Your task to perform on an android device: turn on bluetooth scan Image 0: 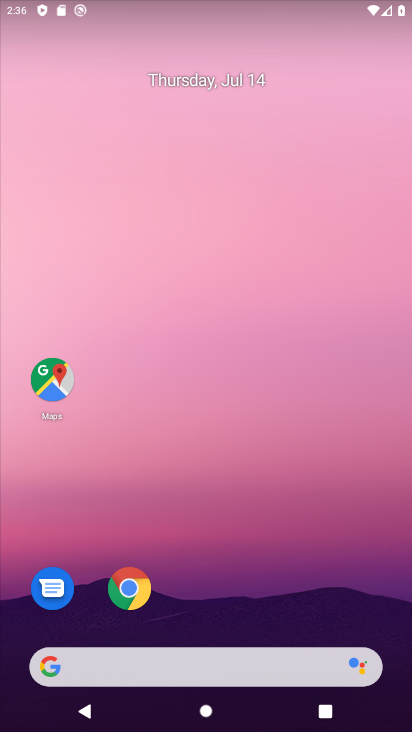
Step 0: drag from (180, 622) to (116, 68)
Your task to perform on an android device: turn on bluetooth scan Image 1: 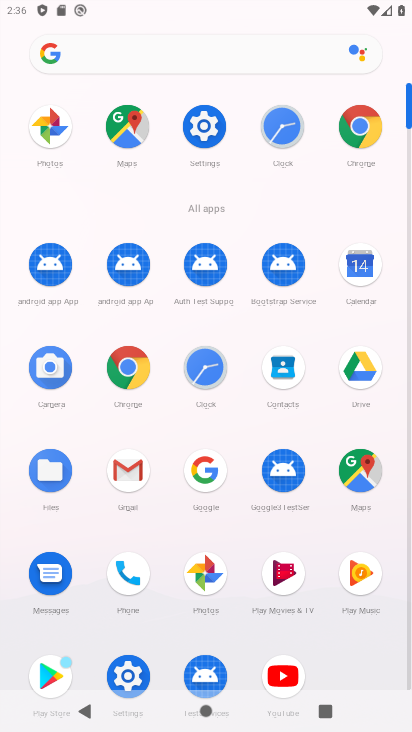
Step 1: click (201, 117)
Your task to perform on an android device: turn on bluetooth scan Image 2: 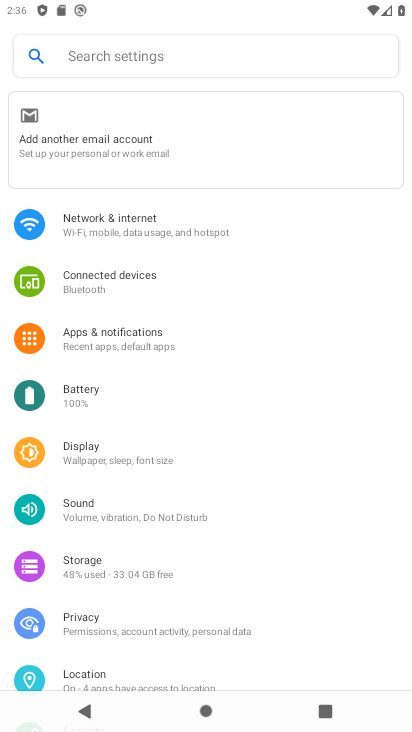
Step 2: drag from (142, 550) to (136, 151)
Your task to perform on an android device: turn on bluetooth scan Image 3: 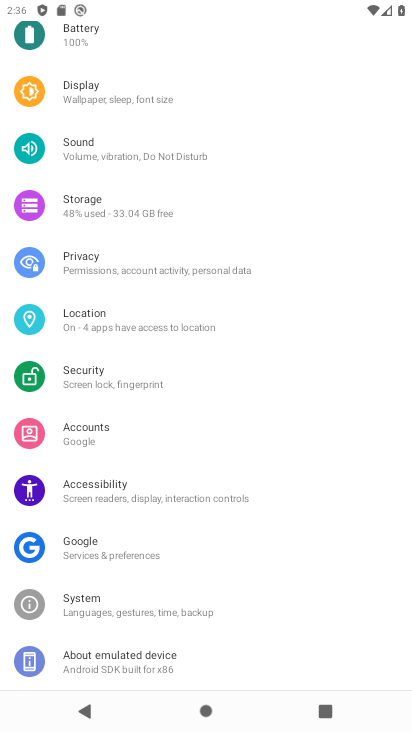
Step 3: click (93, 313)
Your task to perform on an android device: turn on bluetooth scan Image 4: 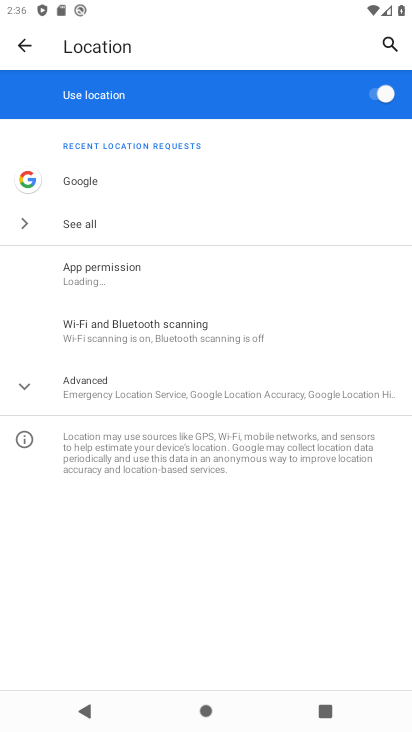
Step 4: click (121, 338)
Your task to perform on an android device: turn on bluetooth scan Image 5: 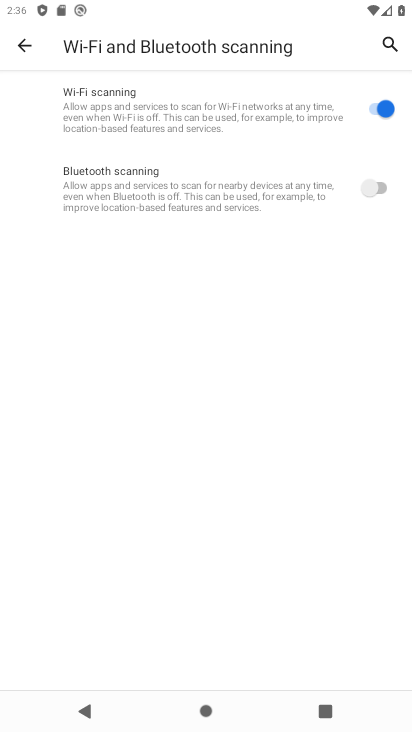
Step 5: click (367, 181)
Your task to perform on an android device: turn on bluetooth scan Image 6: 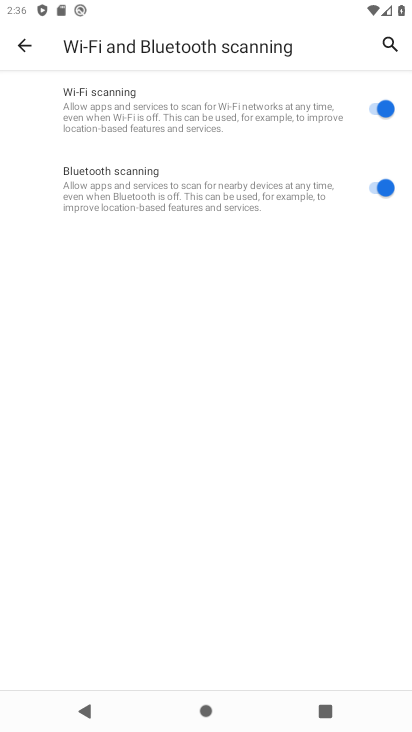
Step 6: task complete